Your task to perform on an android device: find snoozed emails in the gmail app Image 0: 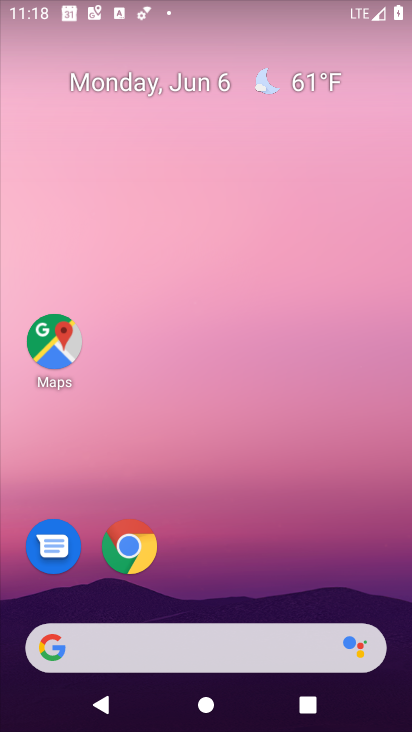
Step 0: drag from (400, 634) to (355, 122)
Your task to perform on an android device: find snoozed emails in the gmail app Image 1: 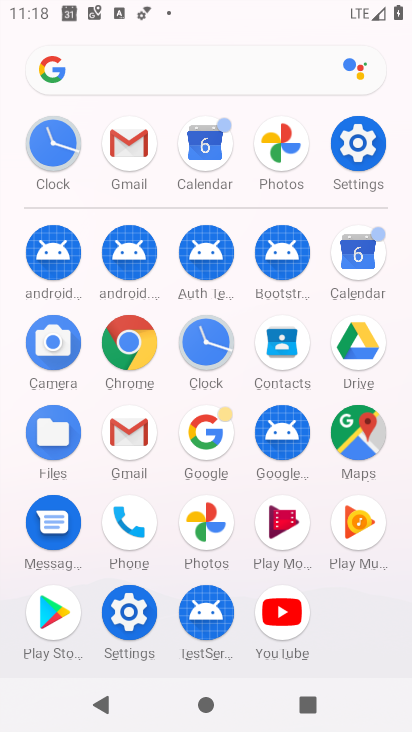
Step 1: click (127, 429)
Your task to perform on an android device: find snoozed emails in the gmail app Image 2: 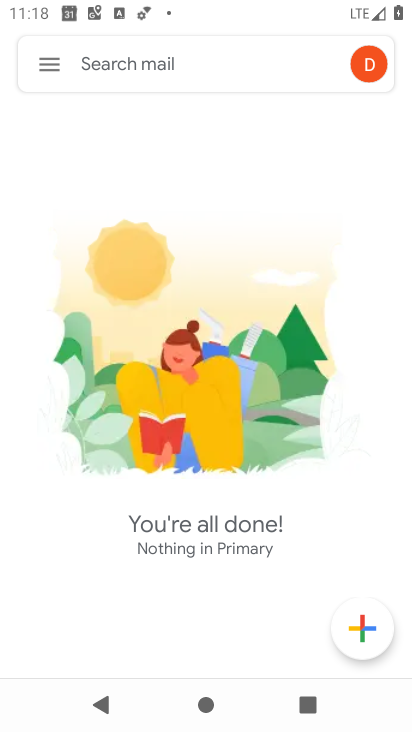
Step 2: click (51, 60)
Your task to perform on an android device: find snoozed emails in the gmail app Image 3: 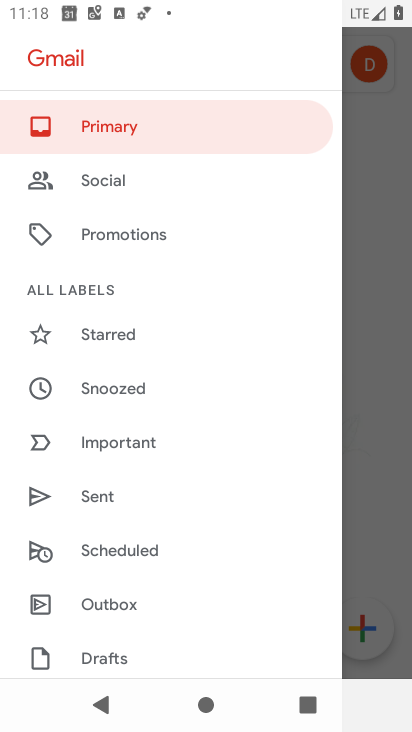
Step 3: drag from (207, 621) to (191, 201)
Your task to perform on an android device: find snoozed emails in the gmail app Image 4: 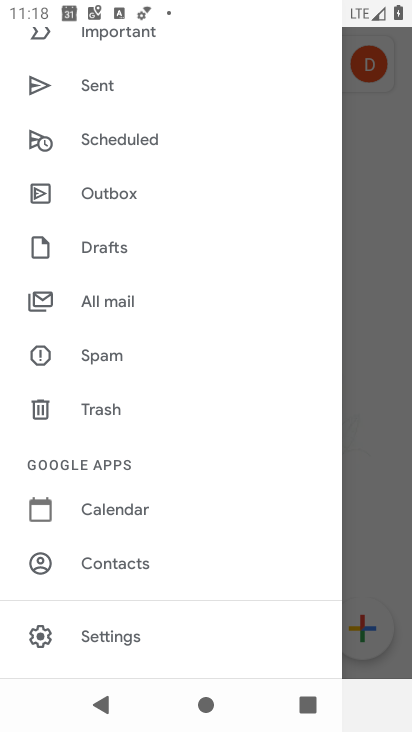
Step 4: drag from (179, 124) to (180, 503)
Your task to perform on an android device: find snoozed emails in the gmail app Image 5: 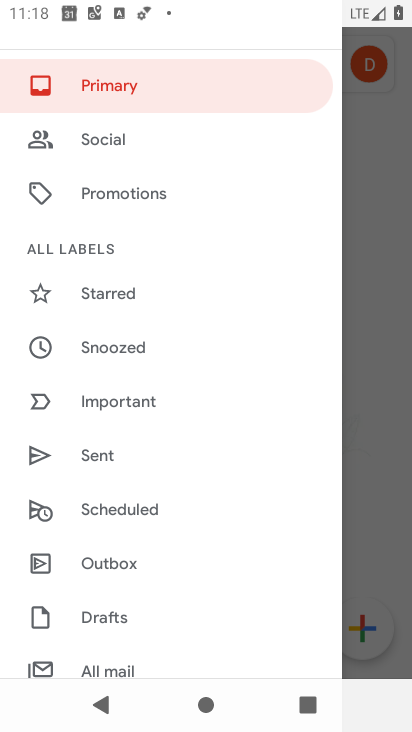
Step 5: click (120, 356)
Your task to perform on an android device: find snoozed emails in the gmail app Image 6: 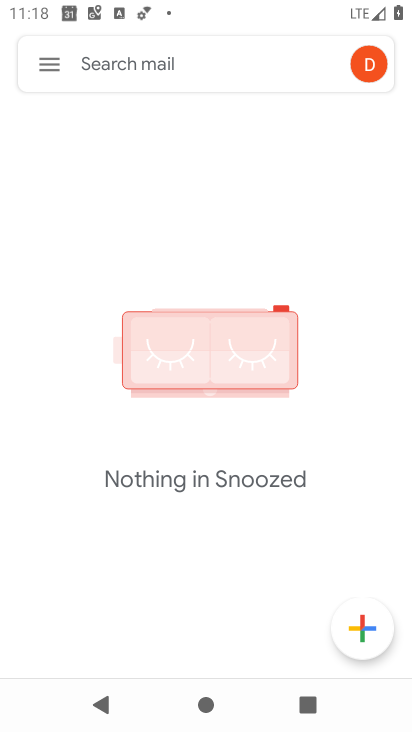
Step 6: task complete